Your task to perform on an android device: show emergency info Image 0: 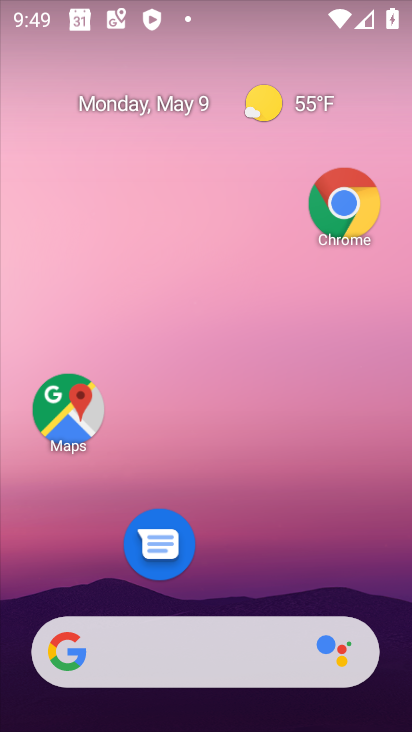
Step 0: drag from (280, 583) to (228, 86)
Your task to perform on an android device: show emergency info Image 1: 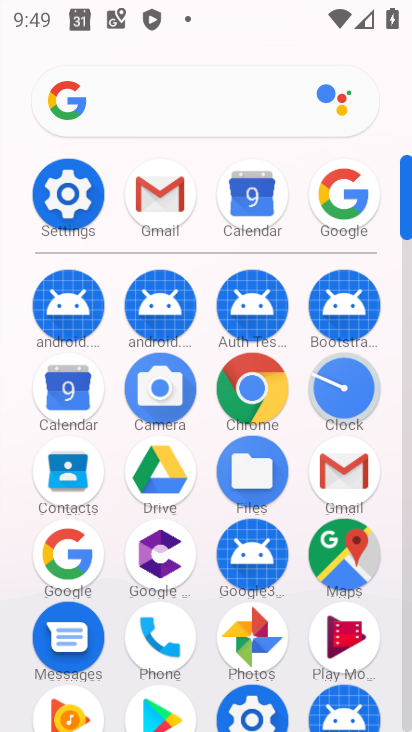
Step 1: click (85, 184)
Your task to perform on an android device: show emergency info Image 2: 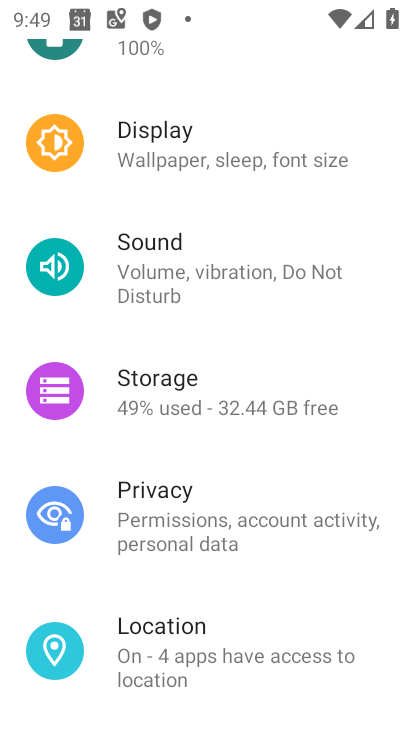
Step 2: drag from (259, 646) to (241, 166)
Your task to perform on an android device: show emergency info Image 3: 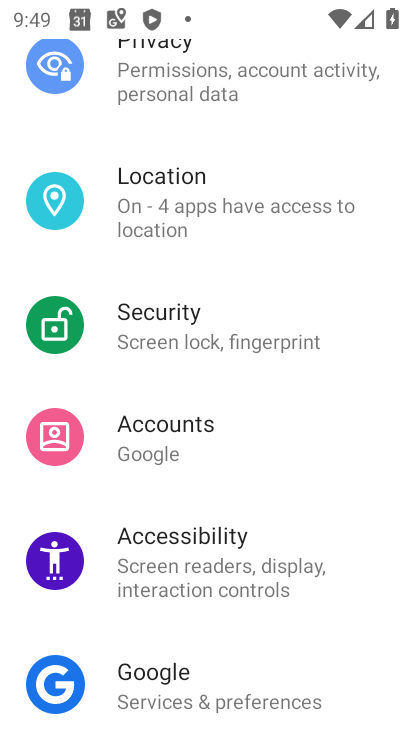
Step 3: drag from (211, 617) to (212, 146)
Your task to perform on an android device: show emergency info Image 4: 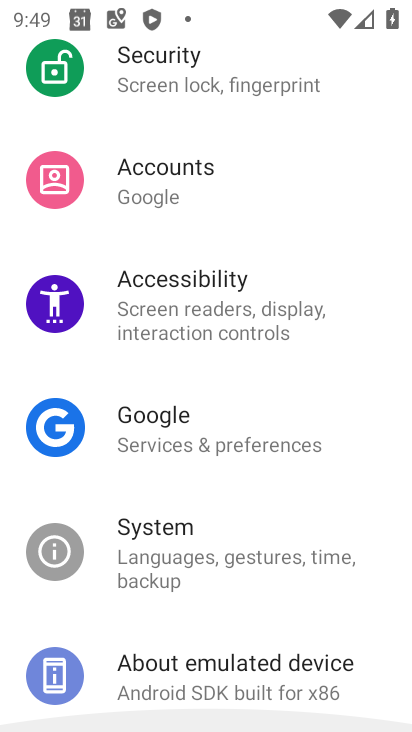
Step 4: drag from (227, 589) to (227, 197)
Your task to perform on an android device: show emergency info Image 5: 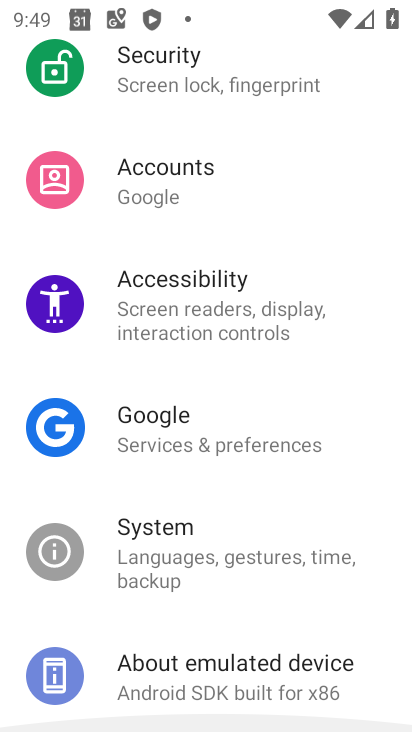
Step 5: drag from (264, 628) to (246, 299)
Your task to perform on an android device: show emergency info Image 6: 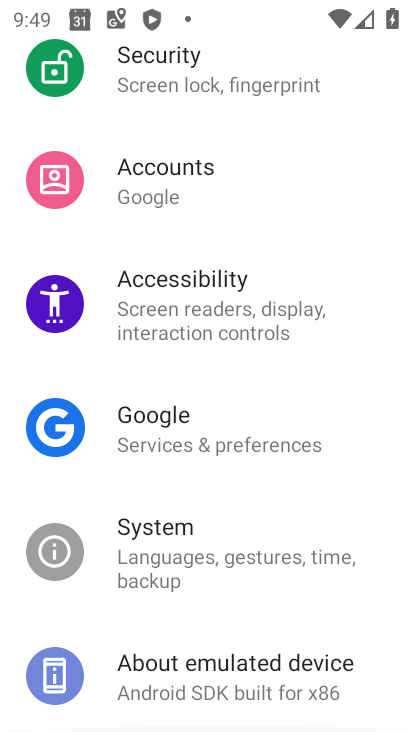
Step 6: click (257, 680)
Your task to perform on an android device: show emergency info Image 7: 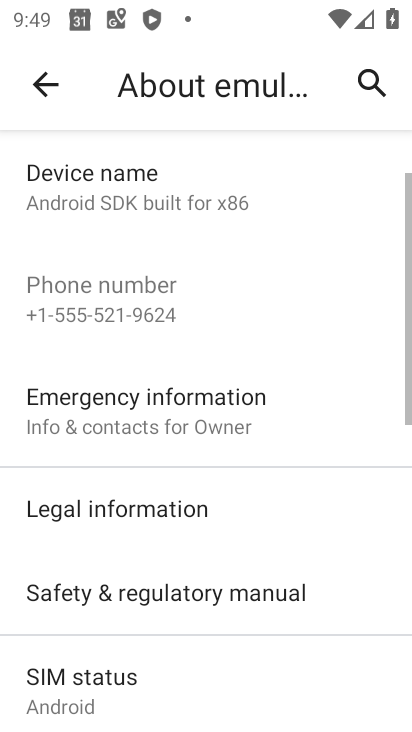
Step 7: click (144, 395)
Your task to perform on an android device: show emergency info Image 8: 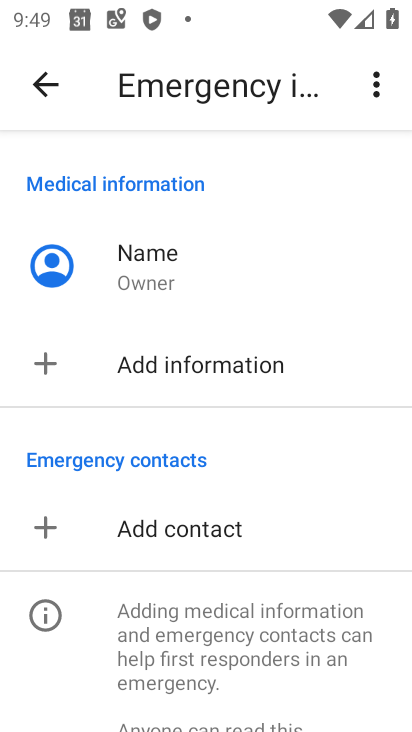
Step 8: task complete